Your task to perform on an android device: Open Maps and search for coffee Image 0: 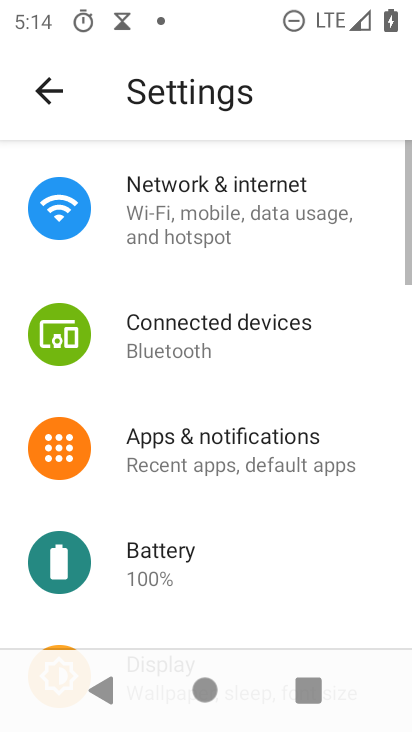
Step 0: press home button
Your task to perform on an android device: Open Maps and search for coffee Image 1: 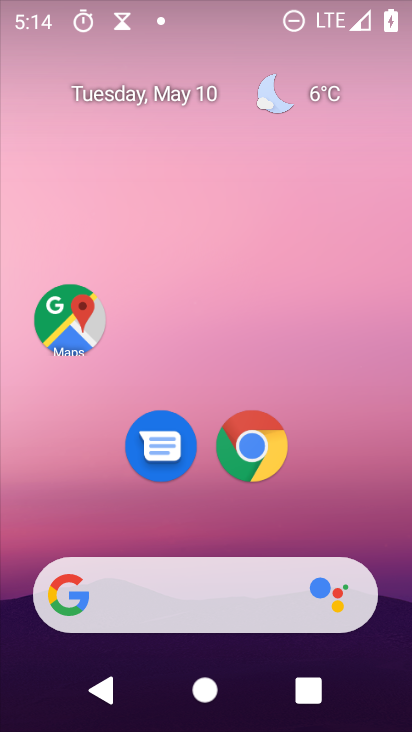
Step 1: click (63, 299)
Your task to perform on an android device: Open Maps and search for coffee Image 2: 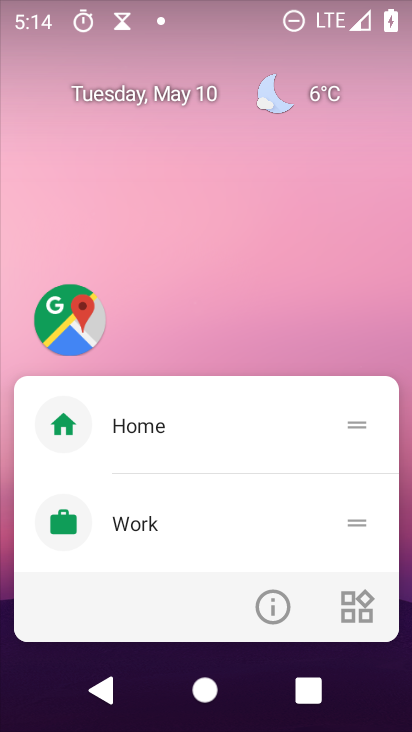
Step 2: click (82, 333)
Your task to perform on an android device: Open Maps and search for coffee Image 3: 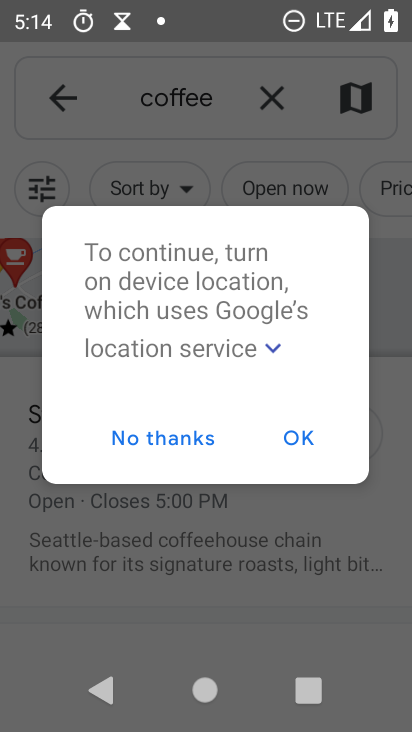
Step 3: click (185, 434)
Your task to perform on an android device: Open Maps and search for coffee Image 4: 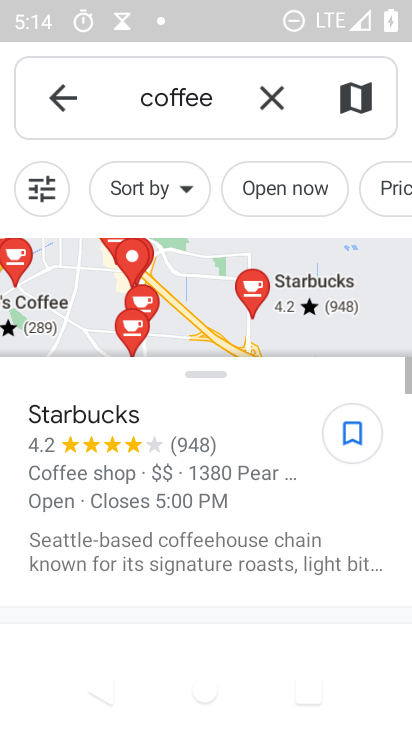
Step 4: task complete